Your task to perform on an android device: Go to eBay Image 0: 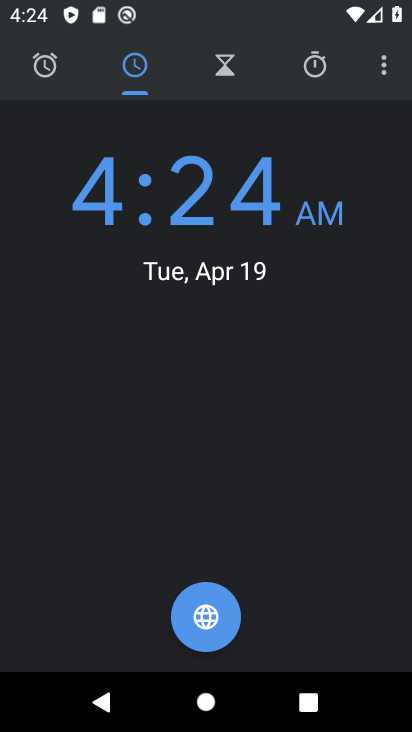
Step 0: press home button
Your task to perform on an android device: Go to eBay Image 1: 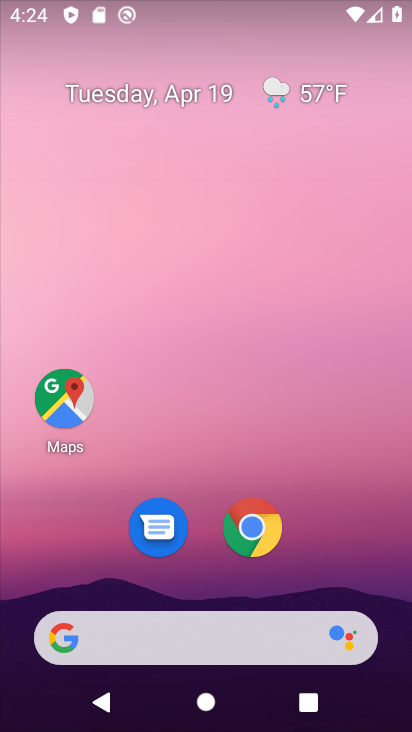
Step 1: click (252, 527)
Your task to perform on an android device: Go to eBay Image 2: 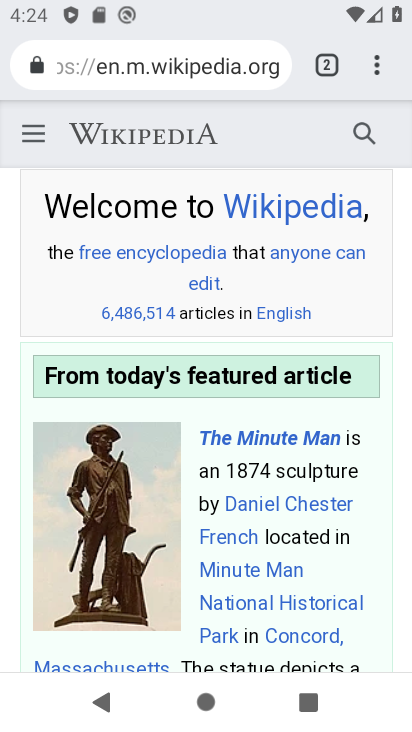
Step 2: click (146, 64)
Your task to perform on an android device: Go to eBay Image 3: 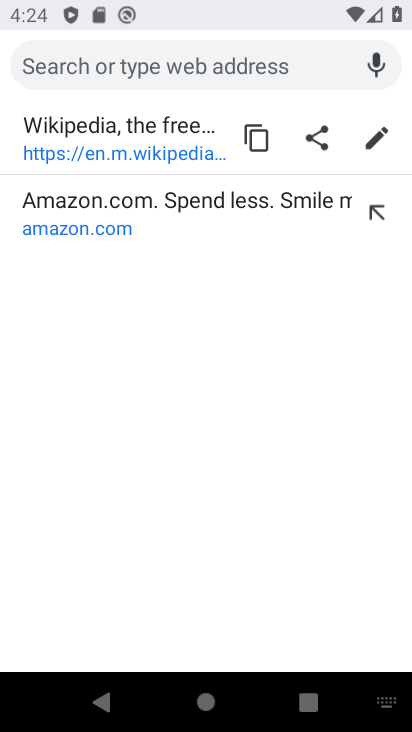
Step 3: type "ebay"
Your task to perform on an android device: Go to eBay Image 4: 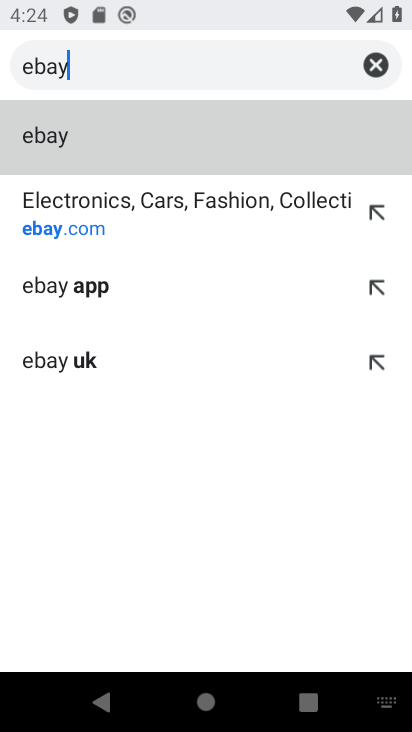
Step 4: click (60, 205)
Your task to perform on an android device: Go to eBay Image 5: 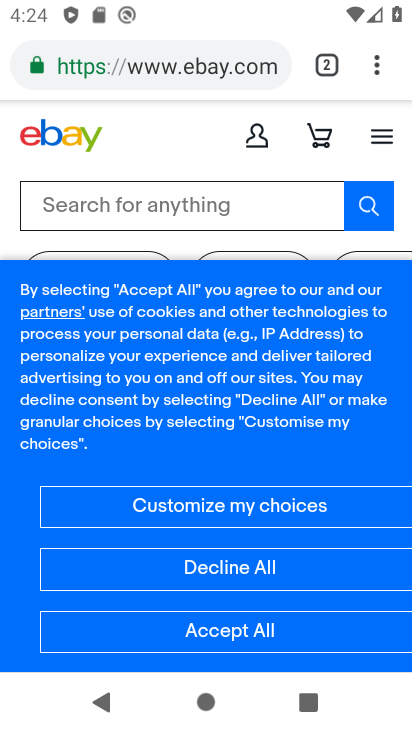
Step 5: task complete